Your task to perform on an android device: Open Google Image 0: 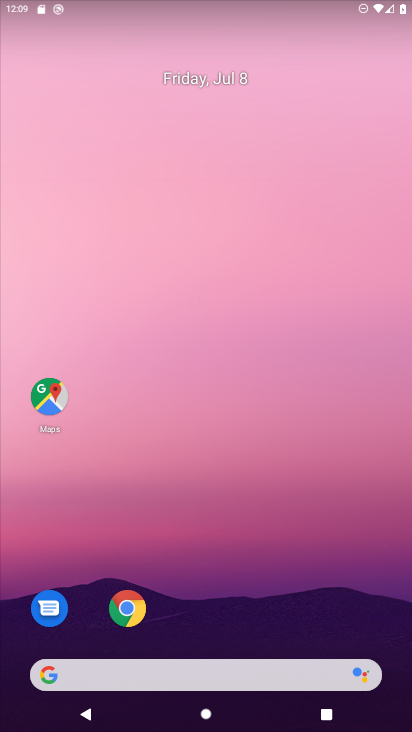
Step 0: drag from (228, 718) to (213, 80)
Your task to perform on an android device: Open Google Image 1: 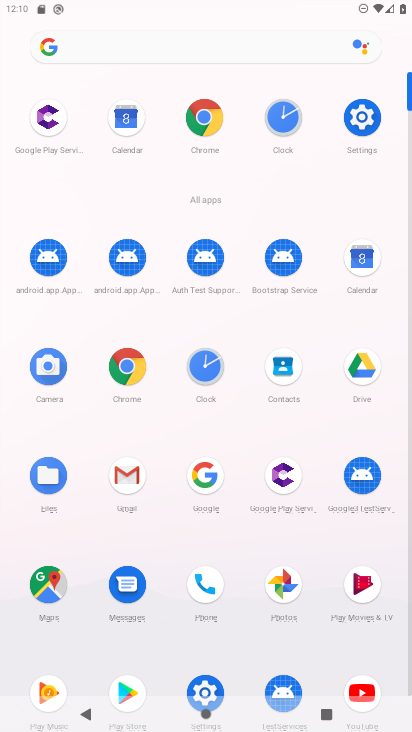
Step 1: click (213, 477)
Your task to perform on an android device: Open Google Image 2: 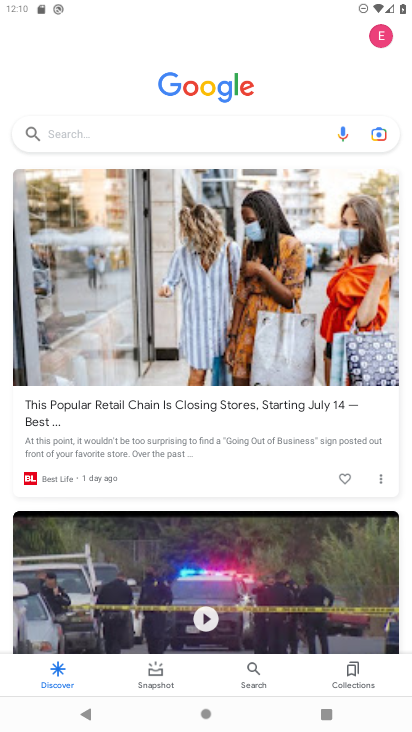
Step 2: task complete